Your task to perform on an android device: Search for Italian restaurants on Maps Image 0: 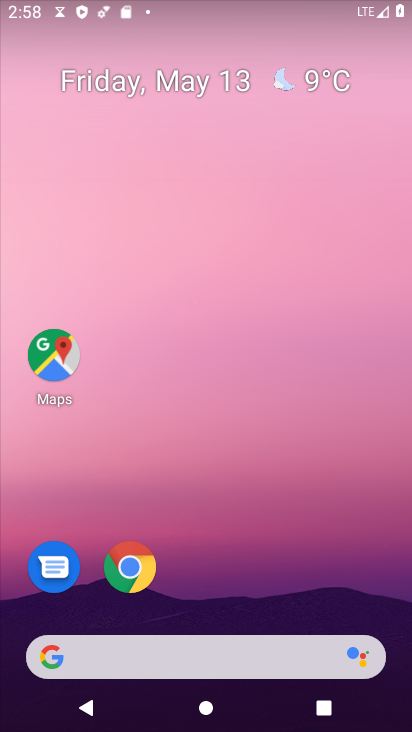
Step 0: click (50, 358)
Your task to perform on an android device: Search for Italian restaurants on Maps Image 1: 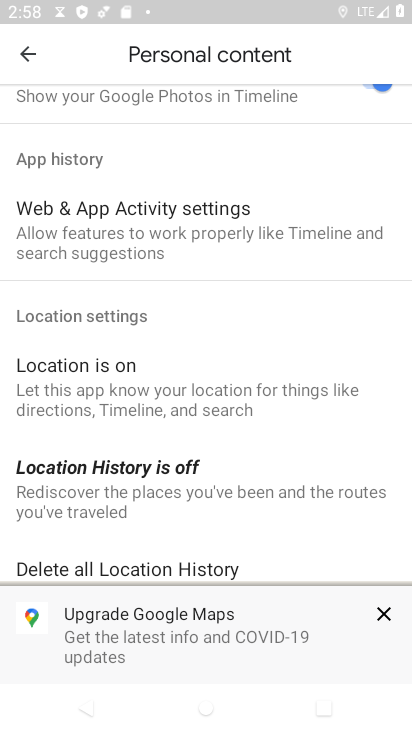
Step 1: click (30, 54)
Your task to perform on an android device: Search for Italian restaurants on Maps Image 2: 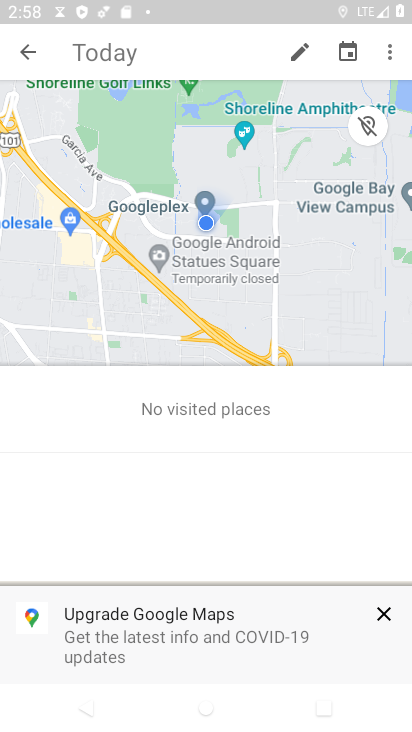
Step 2: click (30, 54)
Your task to perform on an android device: Search for Italian restaurants on Maps Image 3: 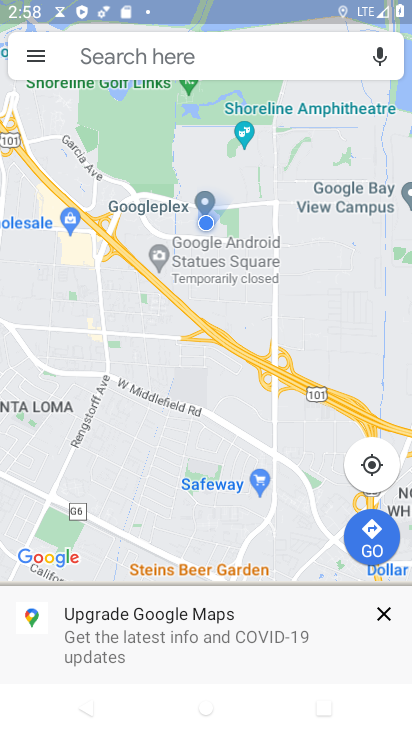
Step 3: click (91, 52)
Your task to perform on an android device: Search for Italian restaurants on Maps Image 4: 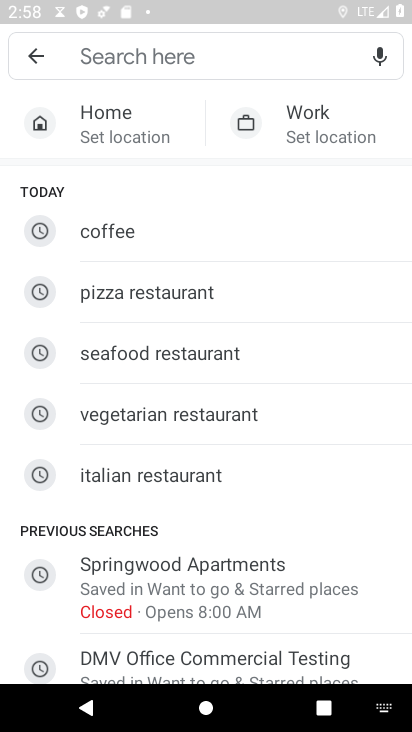
Step 4: type "italian restaurant "
Your task to perform on an android device: Search for Italian restaurants on Maps Image 5: 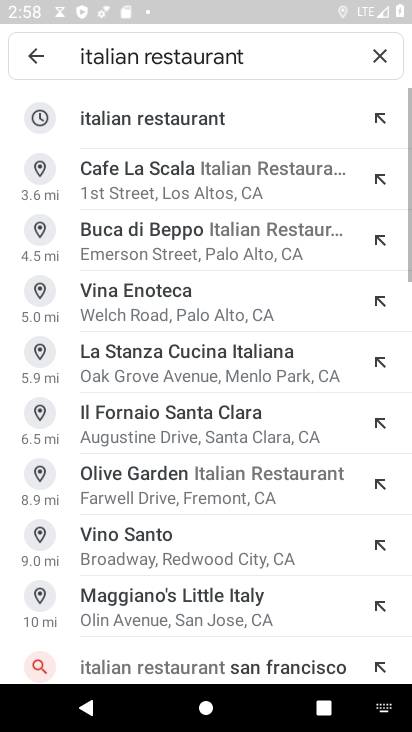
Step 5: click (123, 121)
Your task to perform on an android device: Search for Italian restaurants on Maps Image 6: 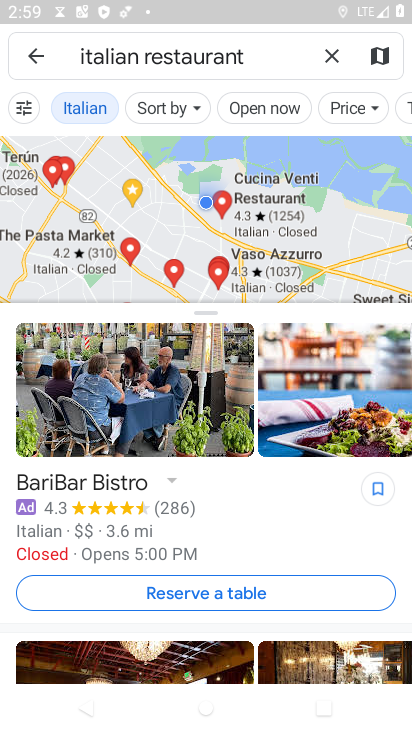
Step 6: task complete